Your task to perform on an android device: Search for seafood restaurants on Google Maps Image 0: 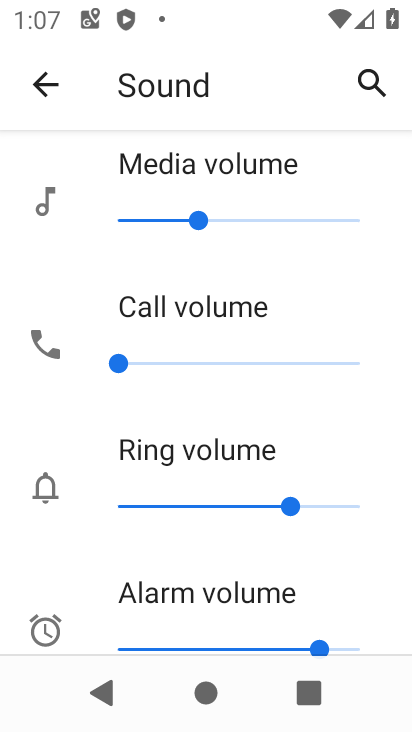
Step 0: press home button
Your task to perform on an android device: Search for seafood restaurants on Google Maps Image 1: 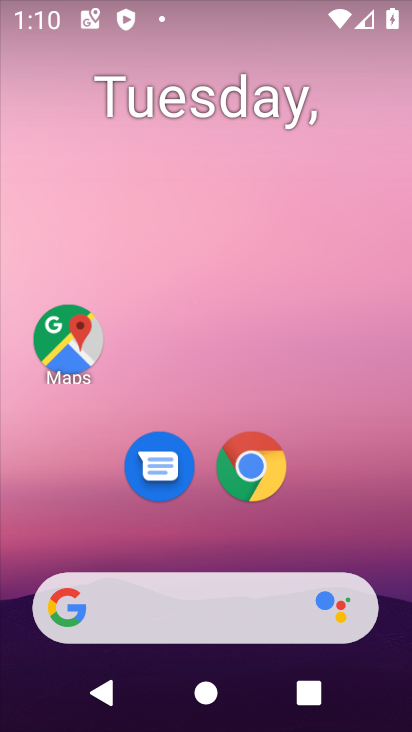
Step 1: click (97, 326)
Your task to perform on an android device: Search for seafood restaurants on Google Maps Image 2: 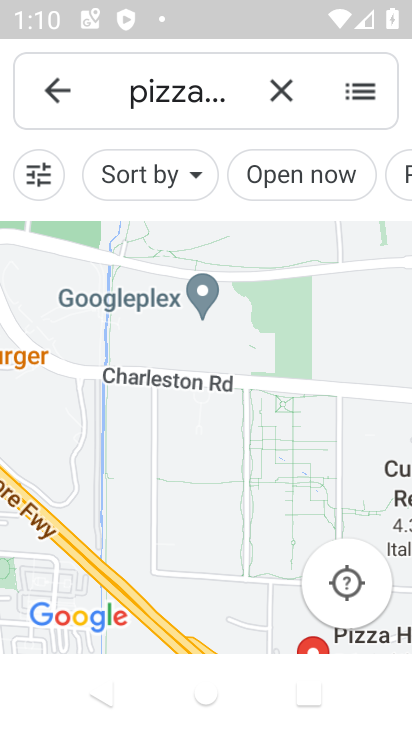
Step 2: click (299, 84)
Your task to perform on an android device: Search for seafood restaurants on Google Maps Image 3: 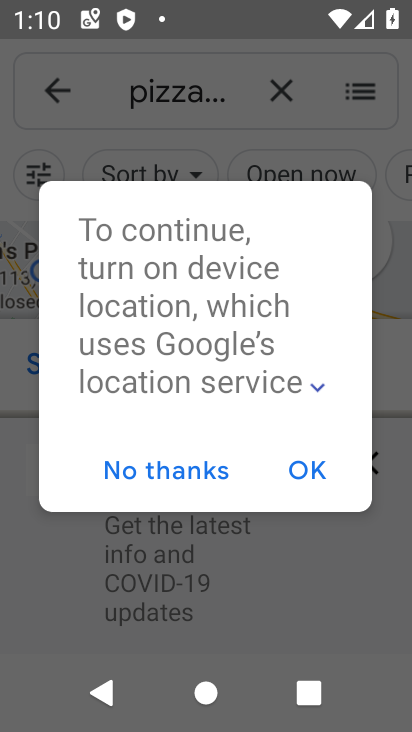
Step 3: click (195, 479)
Your task to perform on an android device: Search for seafood restaurants on Google Maps Image 4: 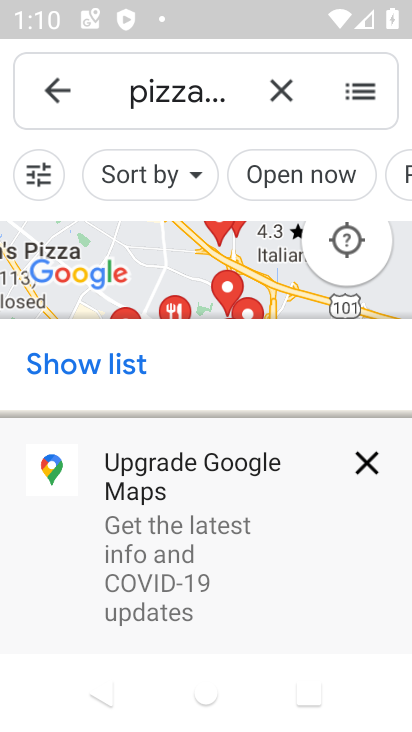
Step 4: click (279, 97)
Your task to perform on an android device: Search for seafood restaurants on Google Maps Image 5: 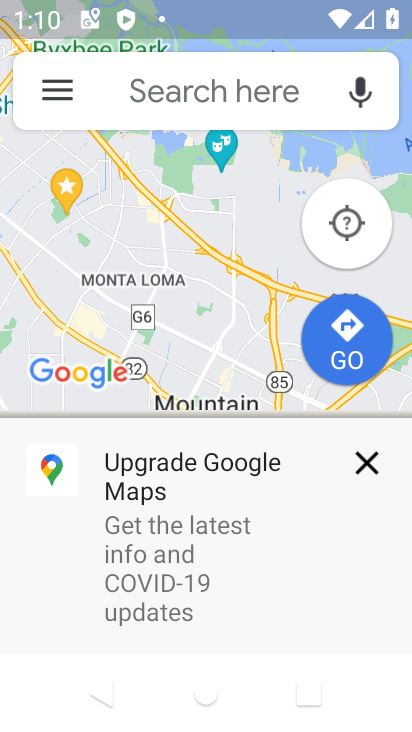
Step 5: click (208, 89)
Your task to perform on an android device: Search for seafood restaurants on Google Maps Image 6: 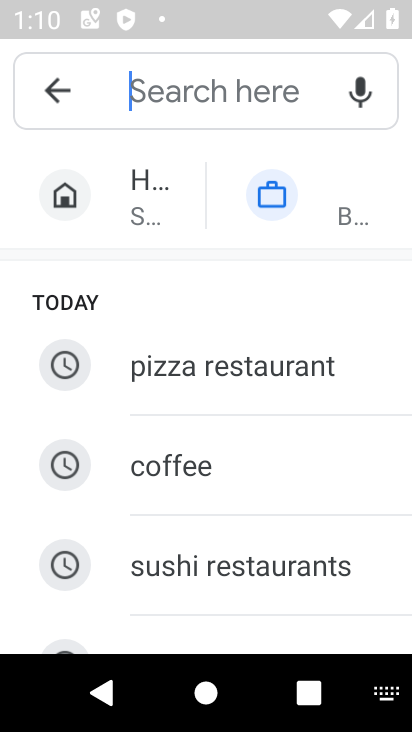
Step 6: type "seafood restaurants"
Your task to perform on an android device: Search for seafood restaurants on Google Maps Image 7: 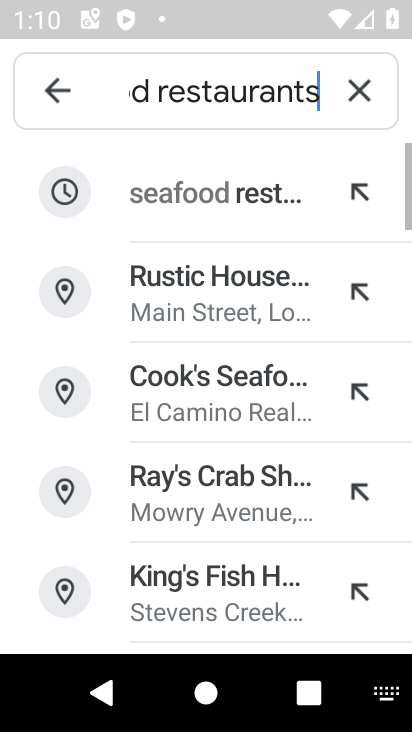
Step 7: click (154, 165)
Your task to perform on an android device: Search for seafood restaurants on Google Maps Image 8: 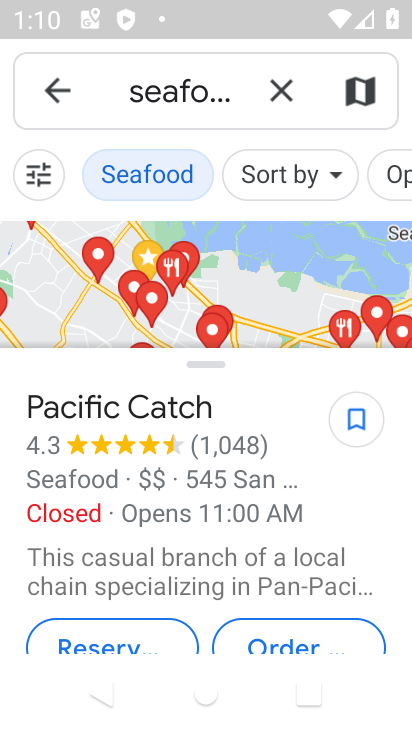
Step 8: task complete